Your task to perform on an android device: empty trash in the gmail app Image 0: 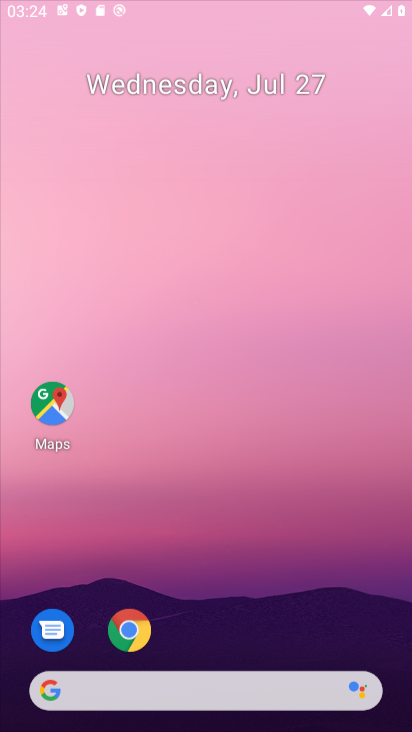
Step 0: press back button
Your task to perform on an android device: empty trash in the gmail app Image 1: 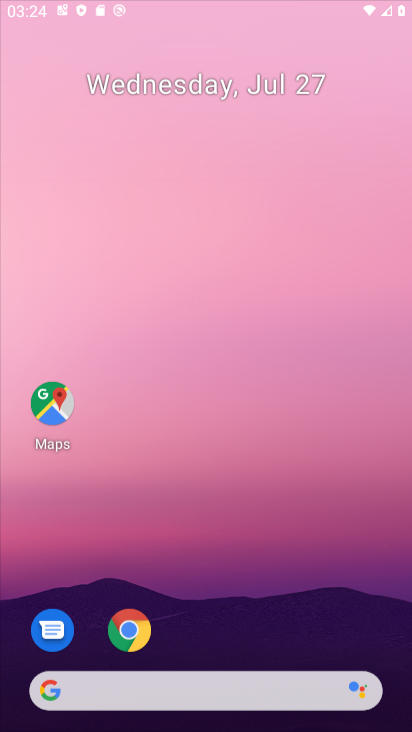
Step 1: drag from (145, 132) to (176, 84)
Your task to perform on an android device: empty trash in the gmail app Image 2: 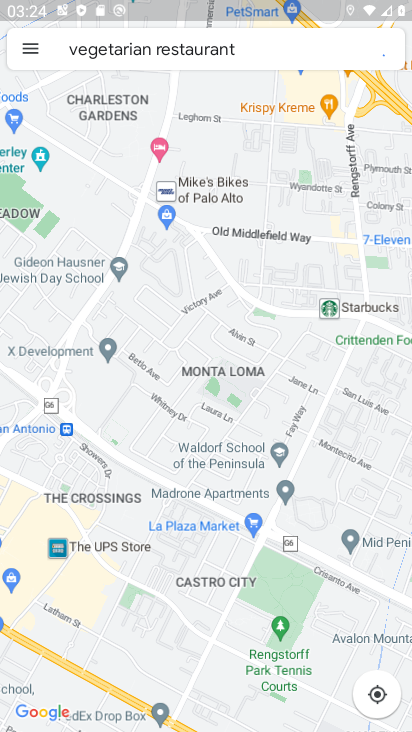
Step 2: drag from (256, 415) to (195, 134)
Your task to perform on an android device: empty trash in the gmail app Image 3: 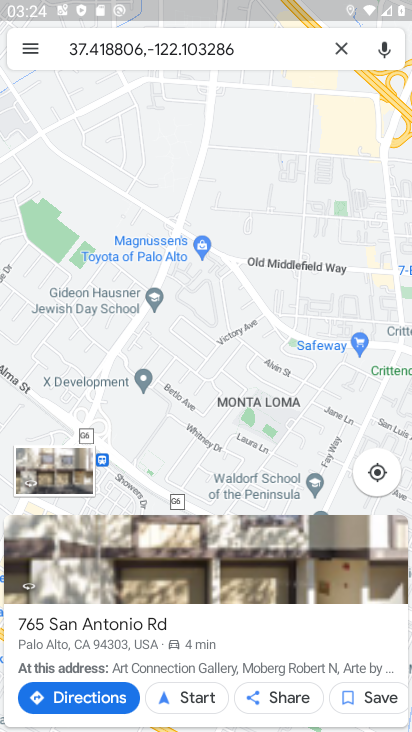
Step 3: press back button
Your task to perform on an android device: empty trash in the gmail app Image 4: 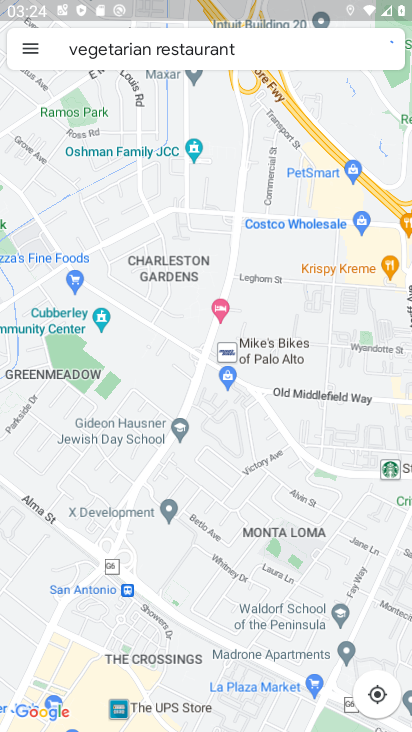
Step 4: press home button
Your task to perform on an android device: empty trash in the gmail app Image 5: 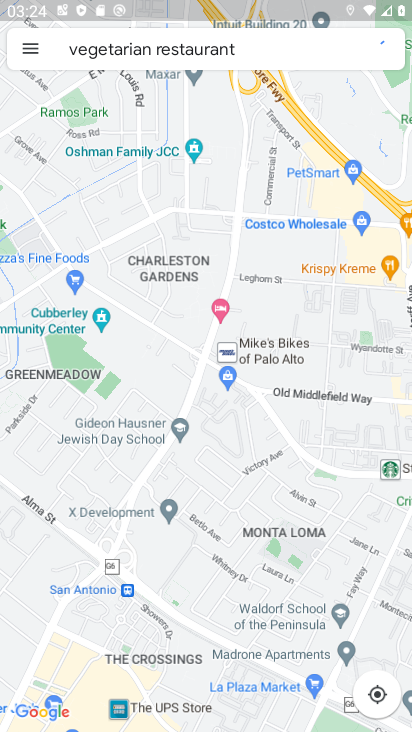
Step 5: drag from (287, 514) to (243, 95)
Your task to perform on an android device: empty trash in the gmail app Image 6: 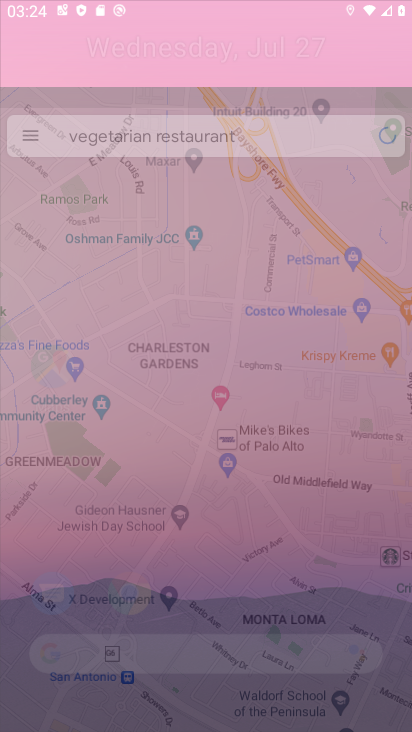
Step 6: drag from (285, 322) to (263, 193)
Your task to perform on an android device: empty trash in the gmail app Image 7: 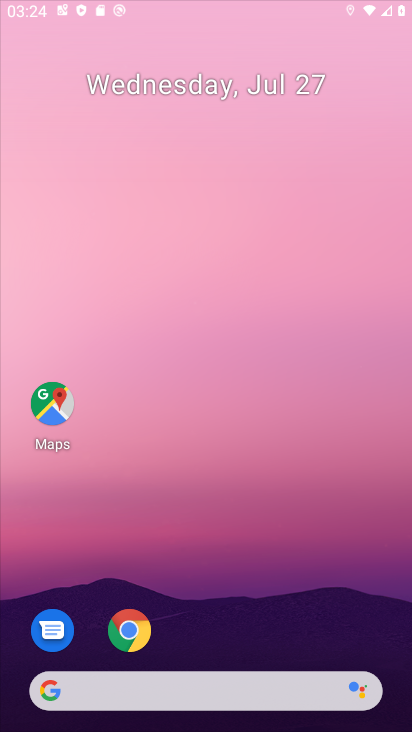
Step 7: drag from (301, 440) to (250, 185)
Your task to perform on an android device: empty trash in the gmail app Image 8: 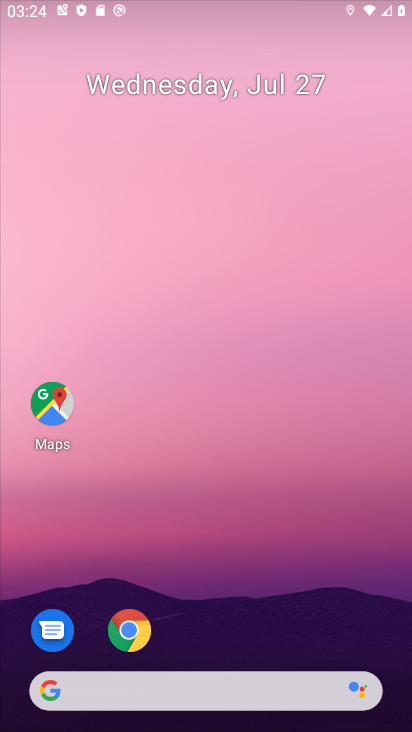
Step 8: drag from (237, 502) to (170, 182)
Your task to perform on an android device: empty trash in the gmail app Image 9: 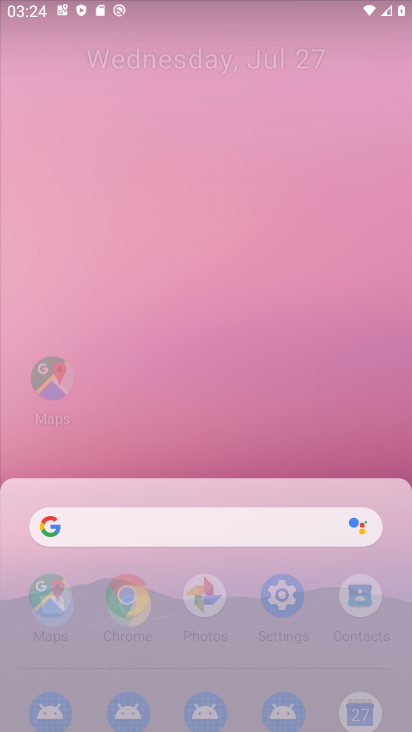
Step 9: drag from (240, 505) to (154, 246)
Your task to perform on an android device: empty trash in the gmail app Image 10: 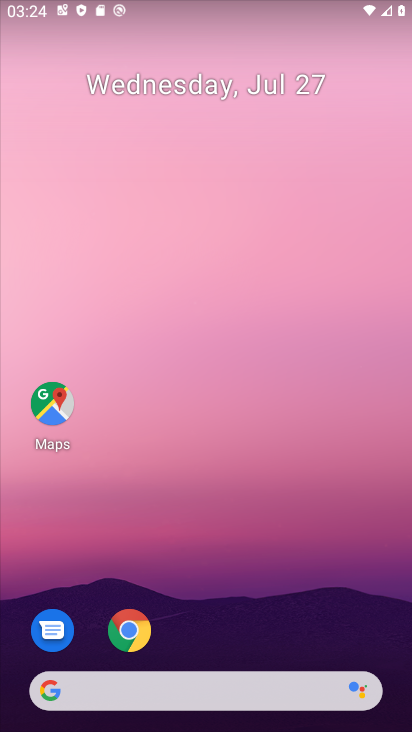
Step 10: drag from (212, 500) to (235, 283)
Your task to perform on an android device: empty trash in the gmail app Image 11: 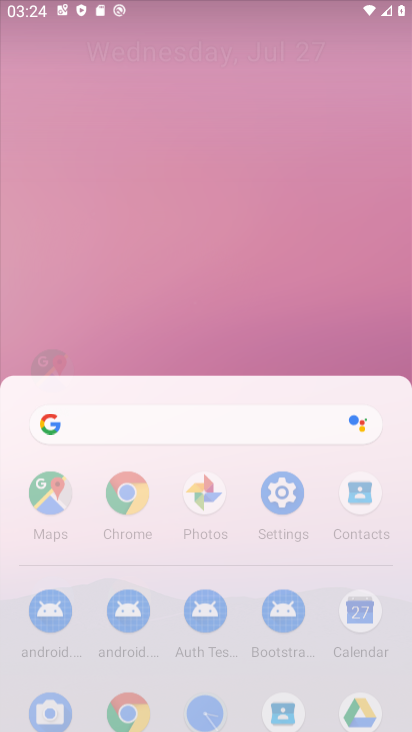
Step 11: drag from (212, 537) to (245, 268)
Your task to perform on an android device: empty trash in the gmail app Image 12: 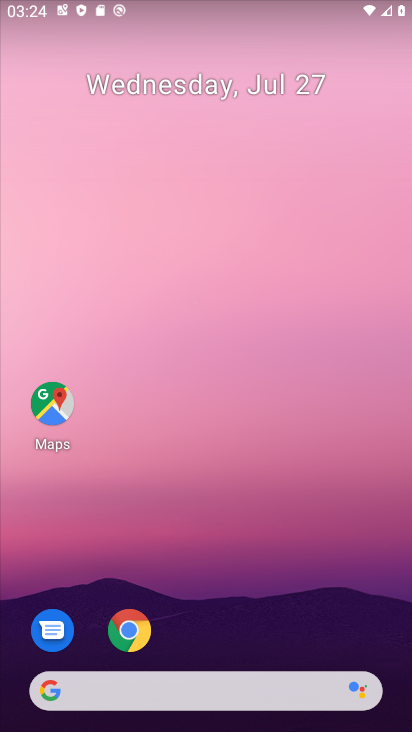
Step 12: drag from (260, 508) to (129, 65)
Your task to perform on an android device: empty trash in the gmail app Image 13: 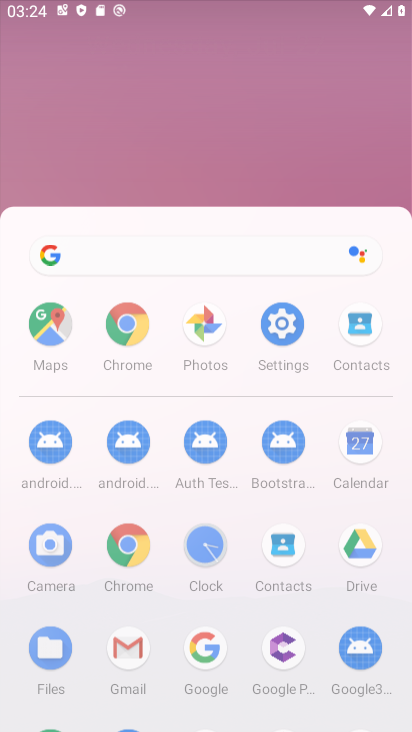
Step 13: drag from (228, 589) to (96, 37)
Your task to perform on an android device: empty trash in the gmail app Image 14: 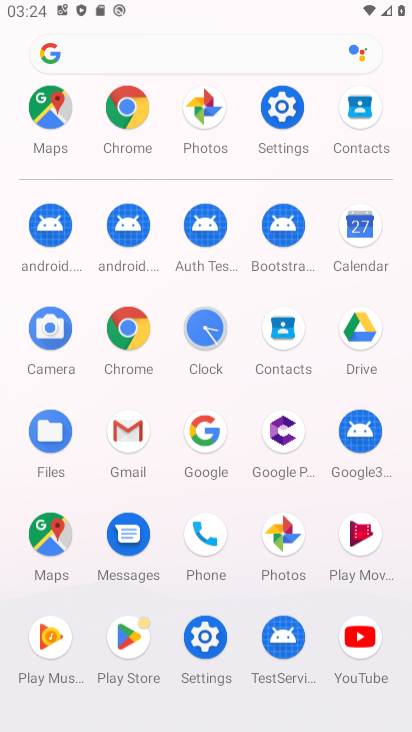
Step 14: drag from (237, 451) to (193, 70)
Your task to perform on an android device: empty trash in the gmail app Image 15: 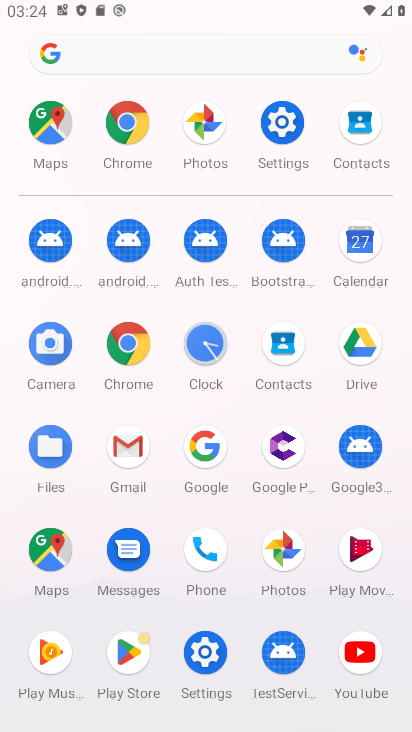
Step 15: click (130, 449)
Your task to perform on an android device: empty trash in the gmail app Image 16: 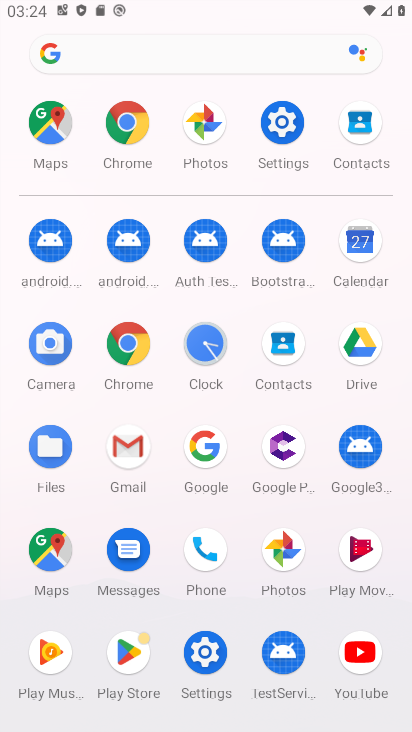
Step 16: click (128, 454)
Your task to perform on an android device: empty trash in the gmail app Image 17: 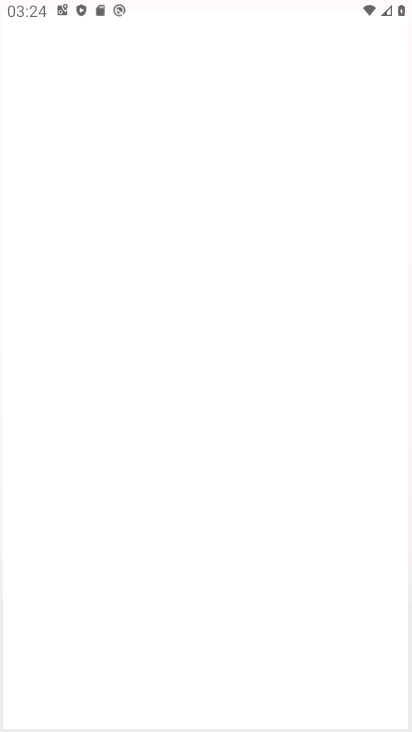
Step 17: click (126, 458)
Your task to perform on an android device: empty trash in the gmail app Image 18: 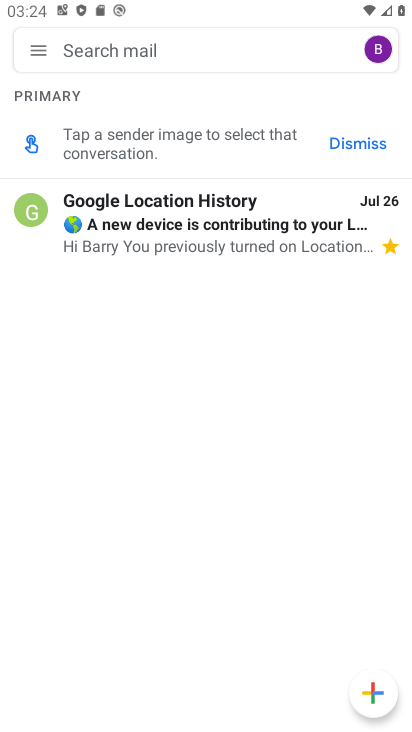
Step 18: click (43, 45)
Your task to perform on an android device: empty trash in the gmail app Image 19: 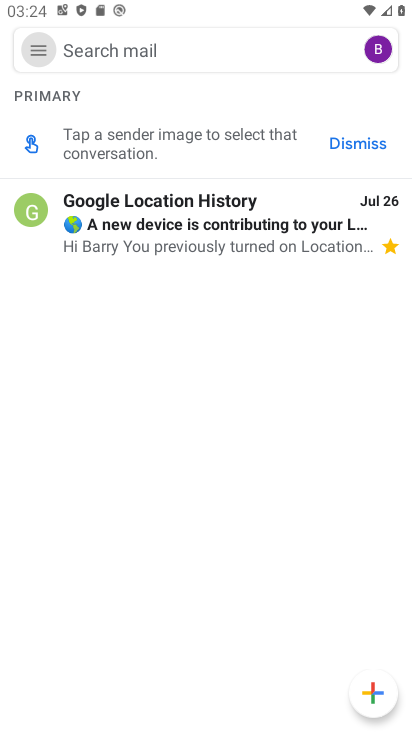
Step 19: click (41, 43)
Your task to perform on an android device: empty trash in the gmail app Image 20: 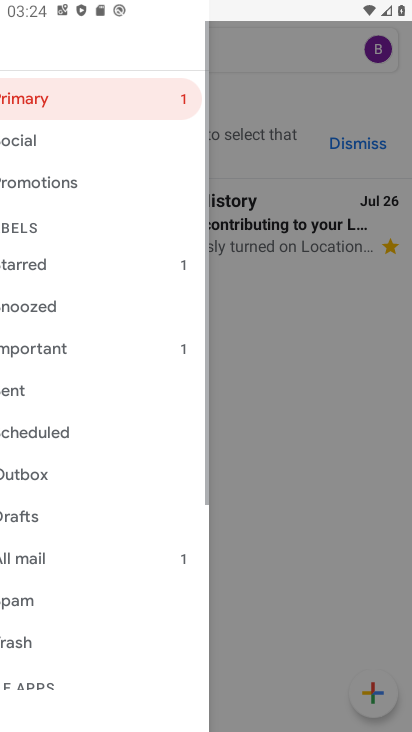
Step 20: click (41, 43)
Your task to perform on an android device: empty trash in the gmail app Image 21: 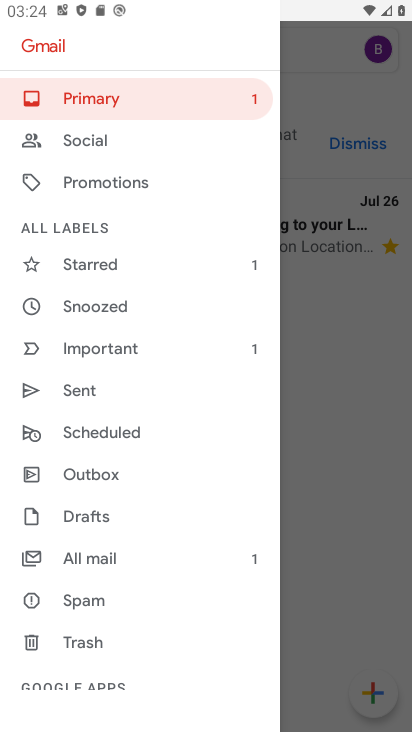
Step 21: click (81, 636)
Your task to perform on an android device: empty trash in the gmail app Image 22: 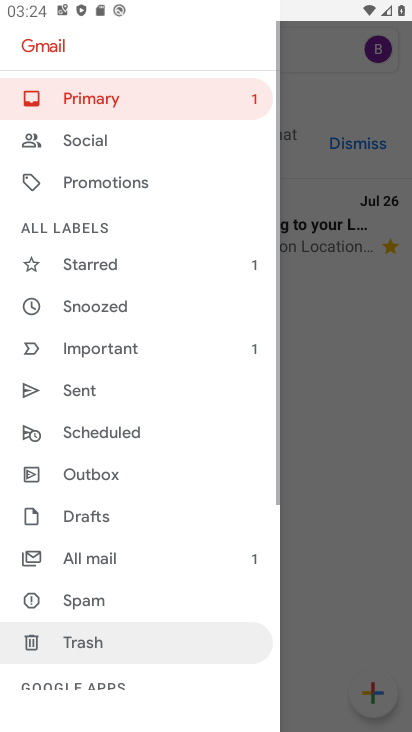
Step 22: click (81, 636)
Your task to perform on an android device: empty trash in the gmail app Image 23: 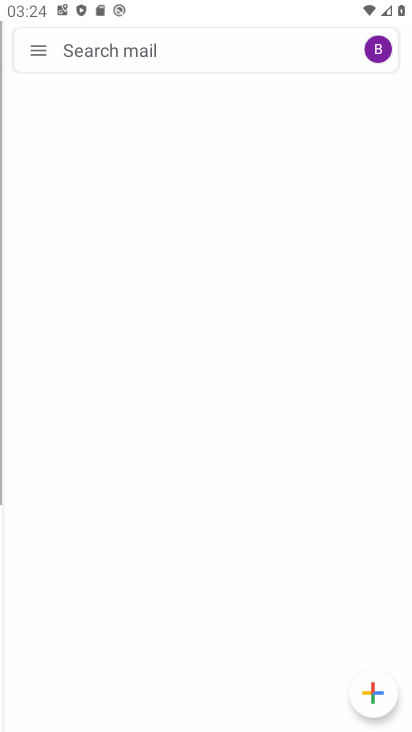
Step 23: click (81, 636)
Your task to perform on an android device: empty trash in the gmail app Image 24: 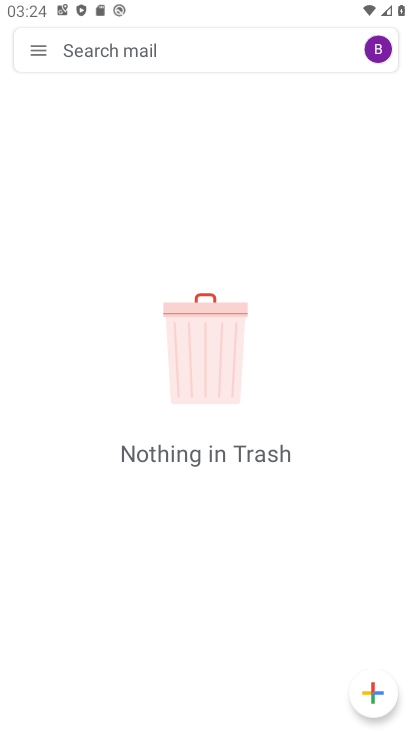
Step 24: task complete